Your task to perform on an android device: see sites visited before in the chrome app Image 0: 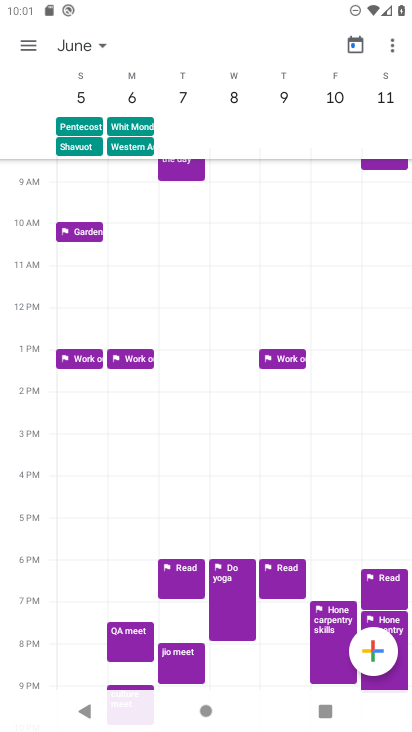
Step 0: press home button
Your task to perform on an android device: see sites visited before in the chrome app Image 1: 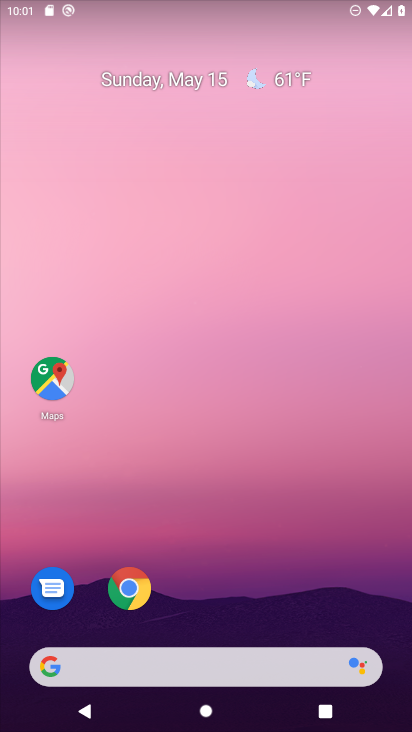
Step 1: click (138, 587)
Your task to perform on an android device: see sites visited before in the chrome app Image 2: 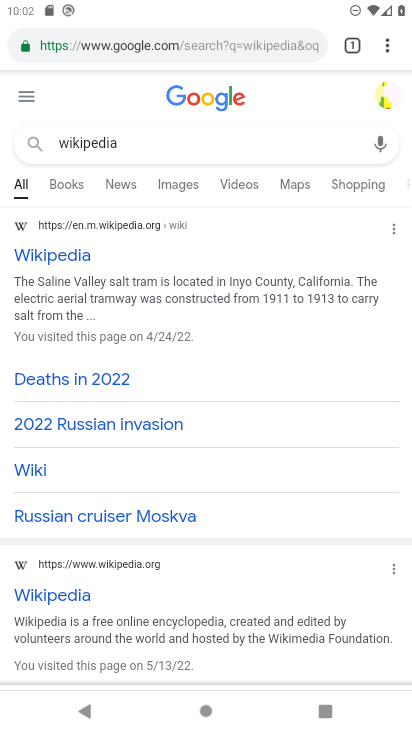
Step 2: click (388, 51)
Your task to perform on an android device: see sites visited before in the chrome app Image 3: 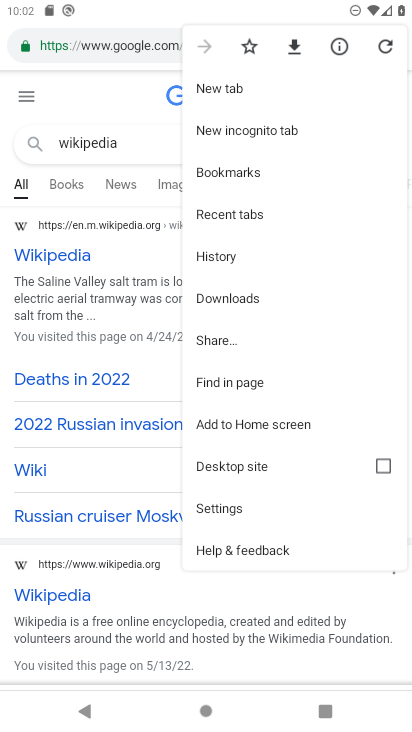
Step 3: click (231, 260)
Your task to perform on an android device: see sites visited before in the chrome app Image 4: 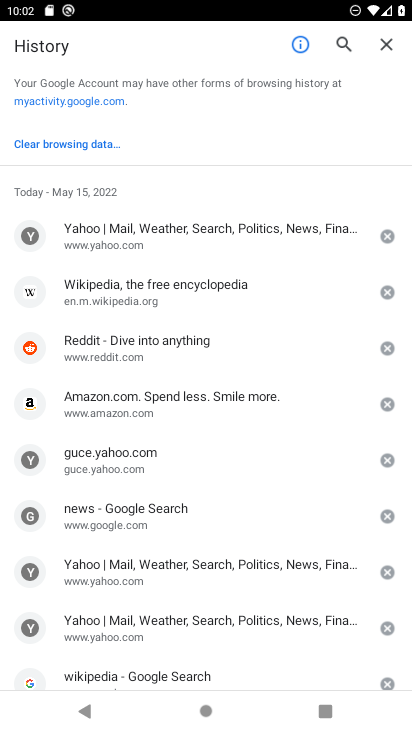
Step 4: task complete